Your task to perform on an android device: Go to battery settings Image 0: 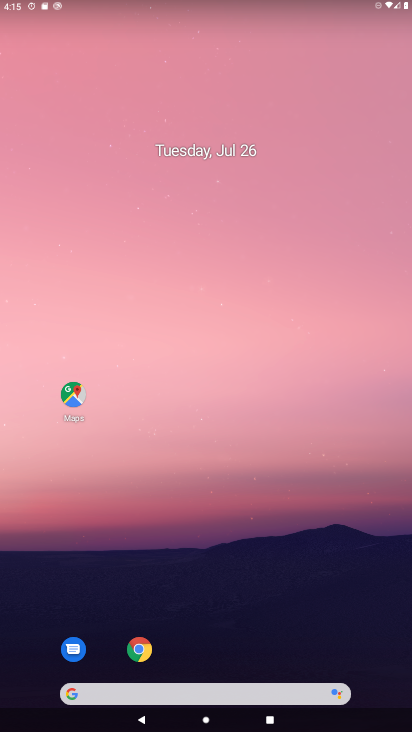
Step 0: drag from (374, 644) to (169, 68)
Your task to perform on an android device: Go to battery settings Image 1: 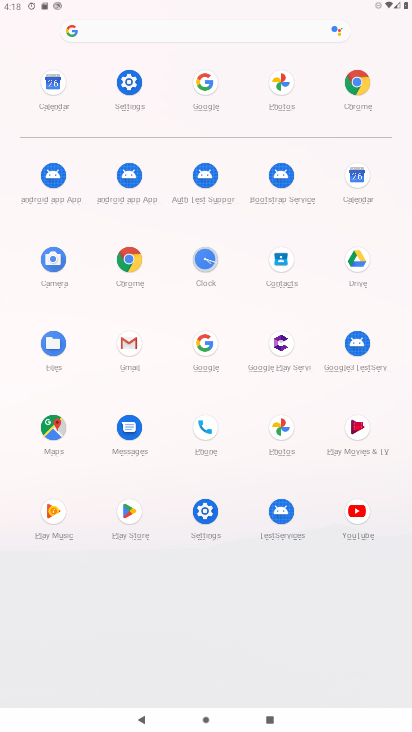
Step 1: click (196, 524)
Your task to perform on an android device: Go to battery settings Image 2: 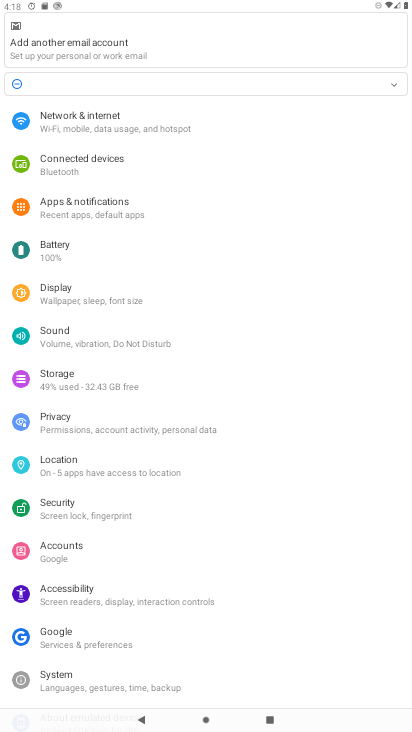
Step 2: click (67, 261)
Your task to perform on an android device: Go to battery settings Image 3: 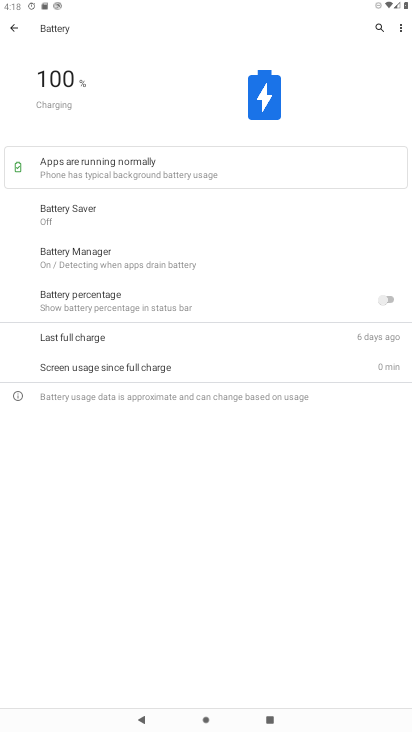
Step 3: task complete